Your task to perform on an android device: Go to notification settings Image 0: 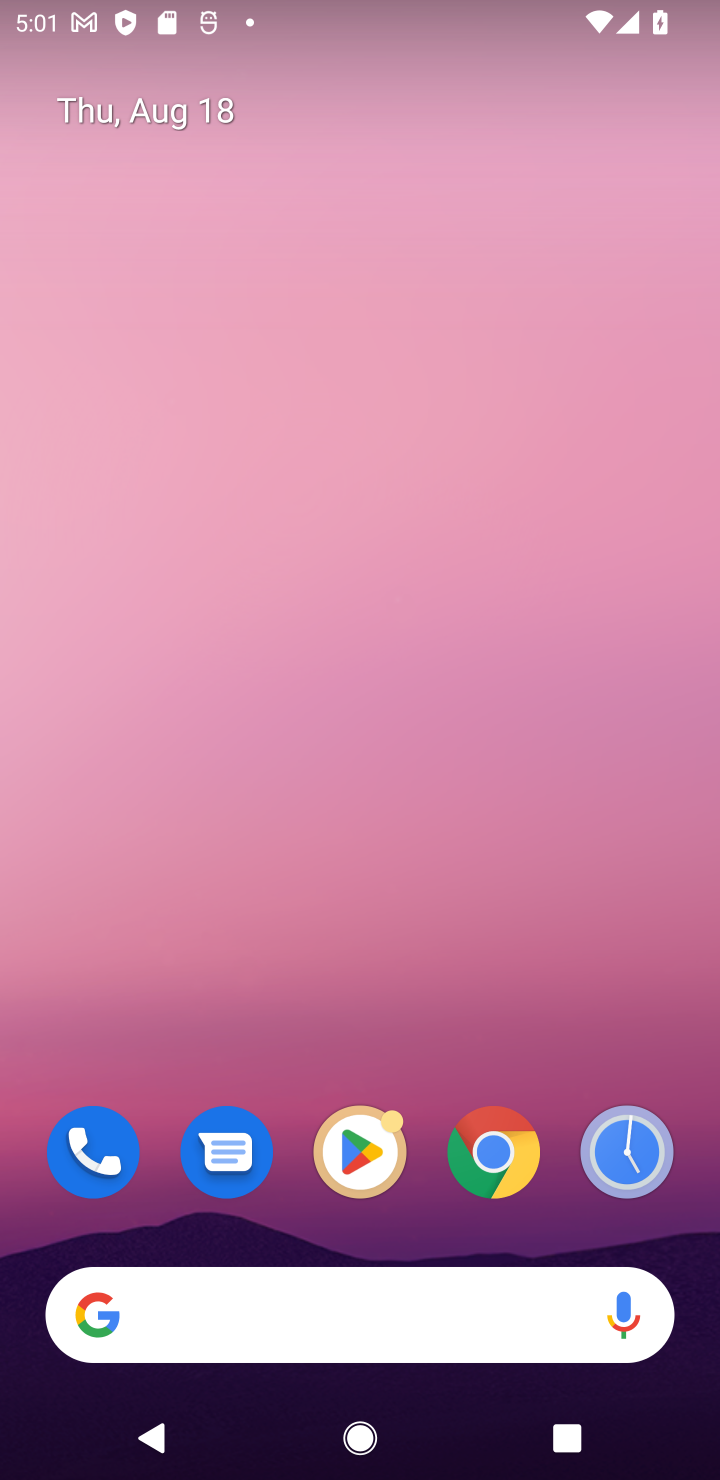
Step 0: drag from (298, 1226) to (278, 124)
Your task to perform on an android device: Go to notification settings Image 1: 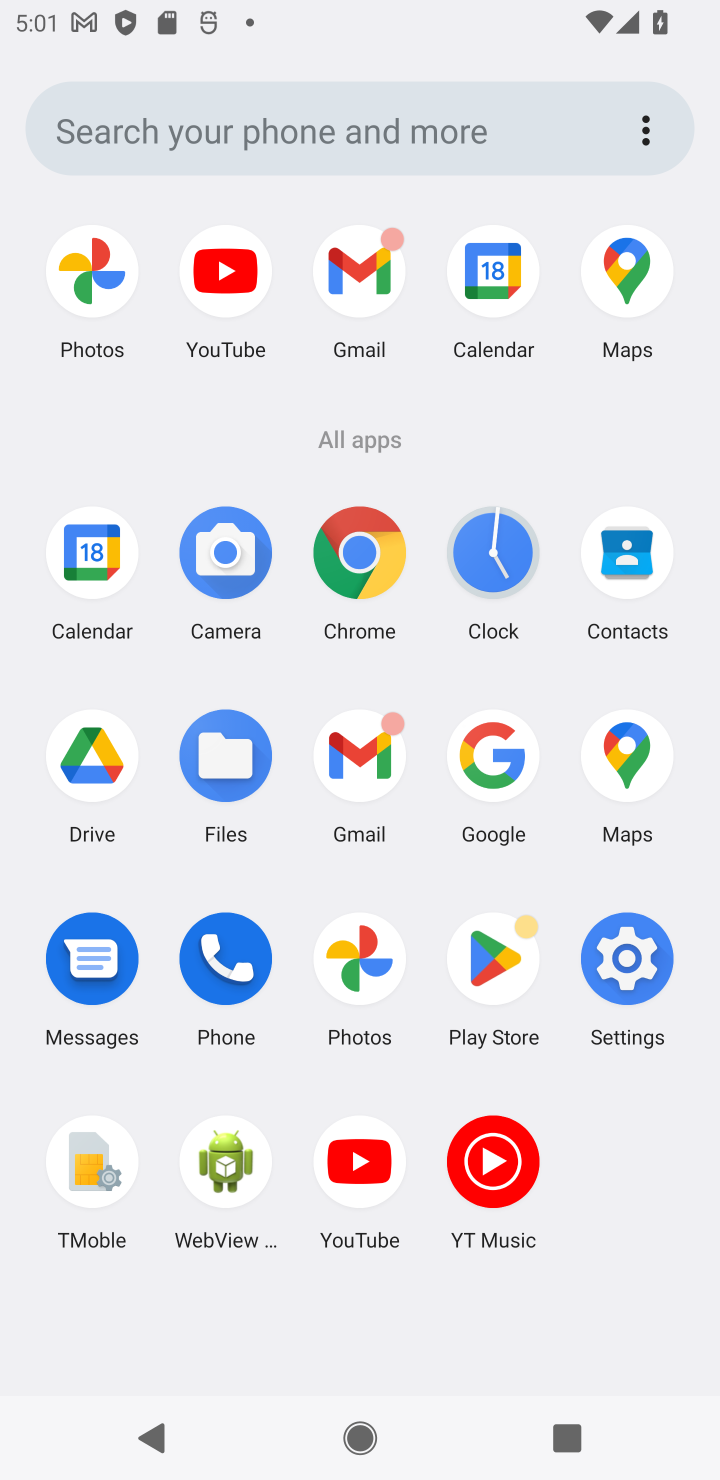
Step 1: click (634, 975)
Your task to perform on an android device: Go to notification settings Image 2: 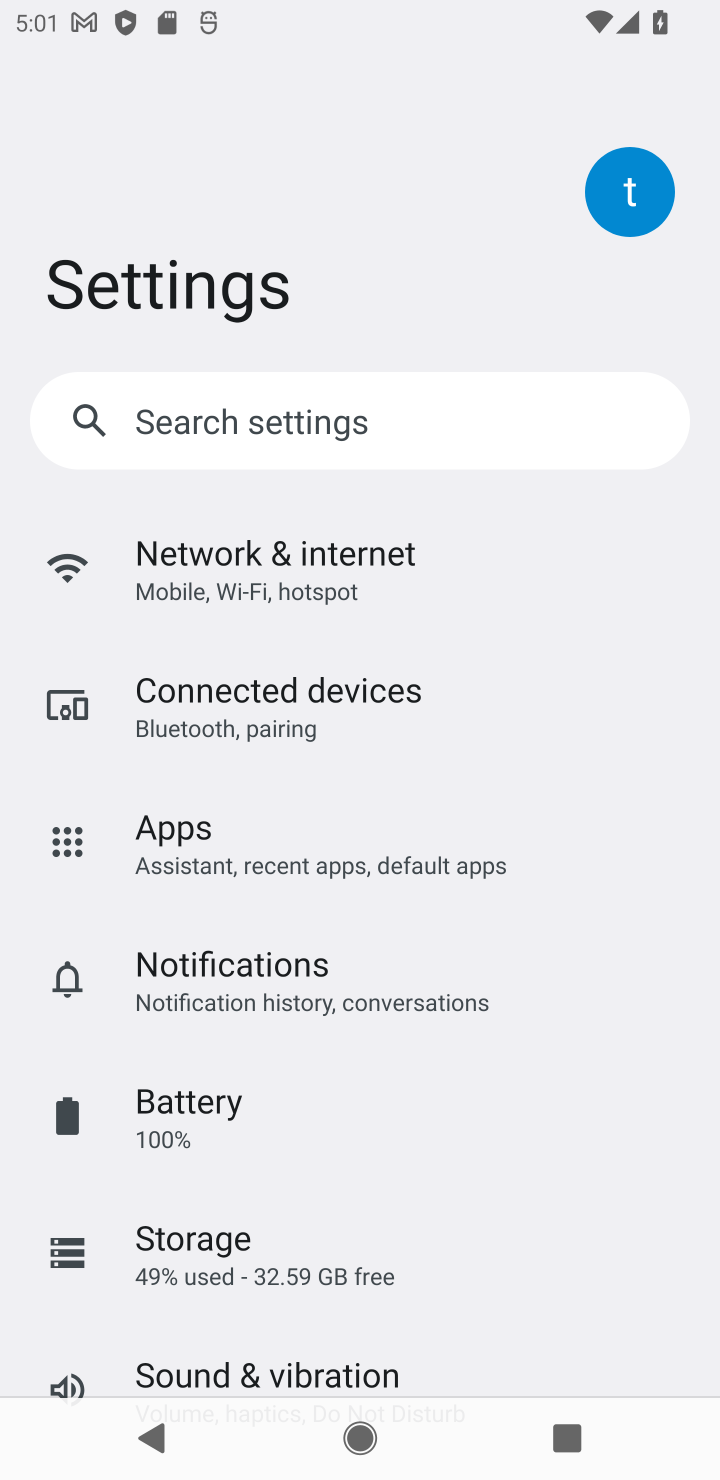
Step 2: click (214, 963)
Your task to perform on an android device: Go to notification settings Image 3: 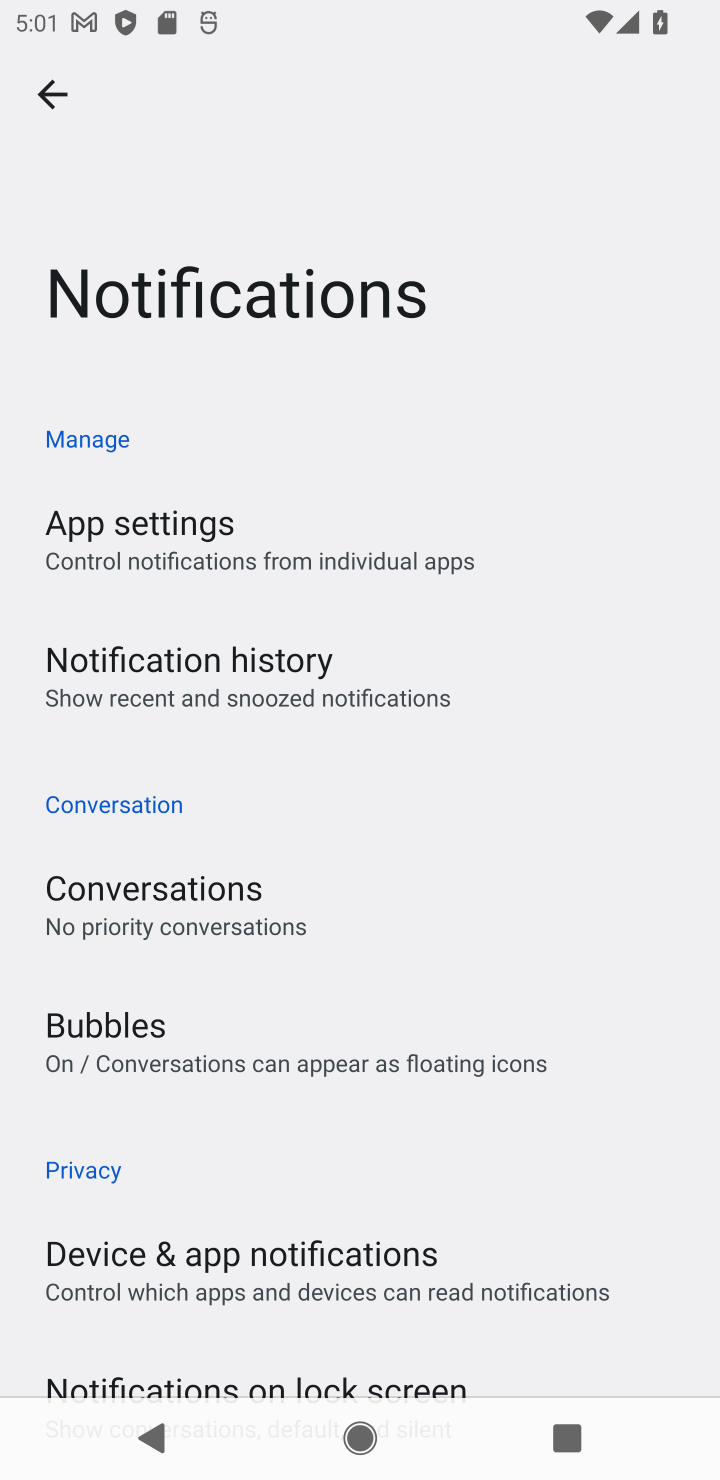
Step 3: task complete